Your task to perform on an android device: delete location history Image 0: 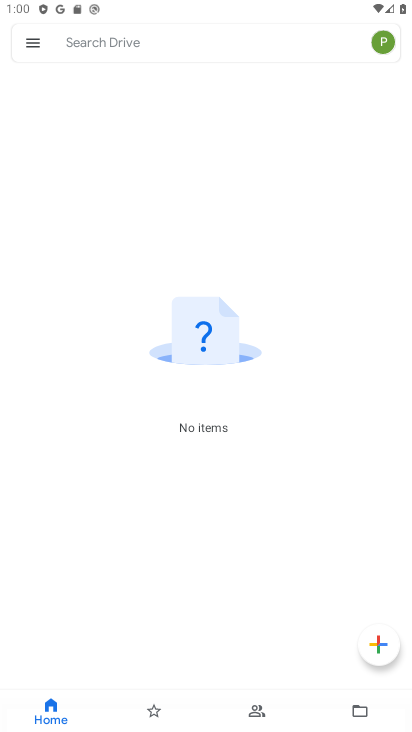
Step 0: press home button
Your task to perform on an android device: delete location history Image 1: 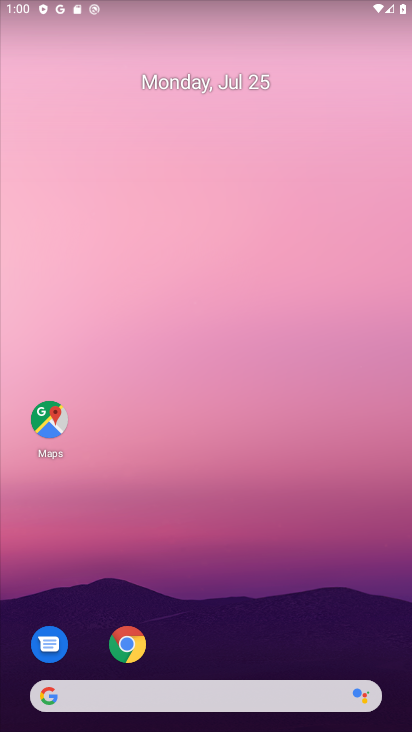
Step 1: click (54, 423)
Your task to perform on an android device: delete location history Image 2: 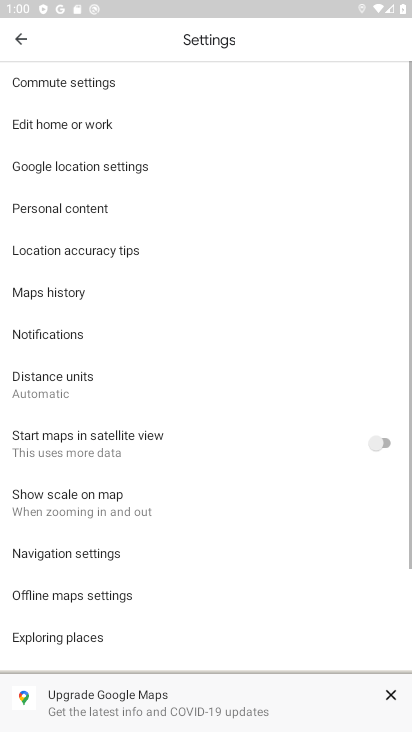
Step 2: click (22, 35)
Your task to perform on an android device: delete location history Image 3: 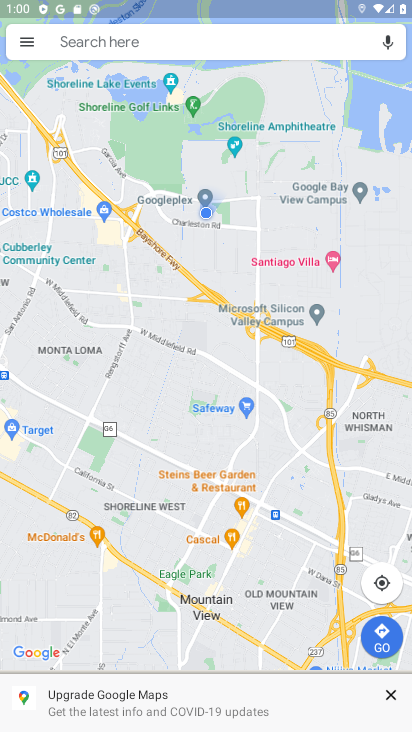
Step 3: click (22, 41)
Your task to perform on an android device: delete location history Image 4: 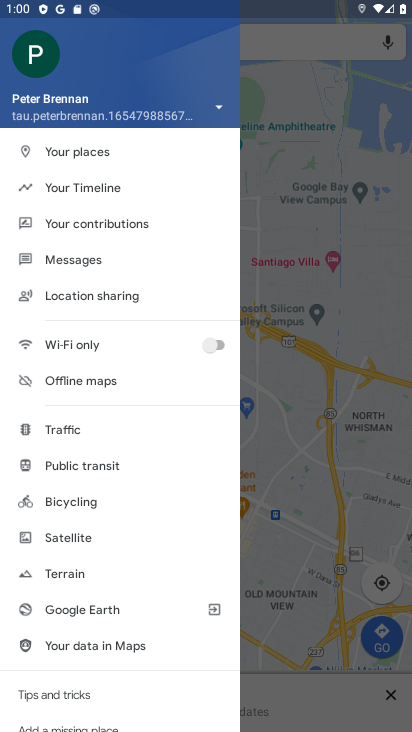
Step 4: click (81, 184)
Your task to perform on an android device: delete location history Image 5: 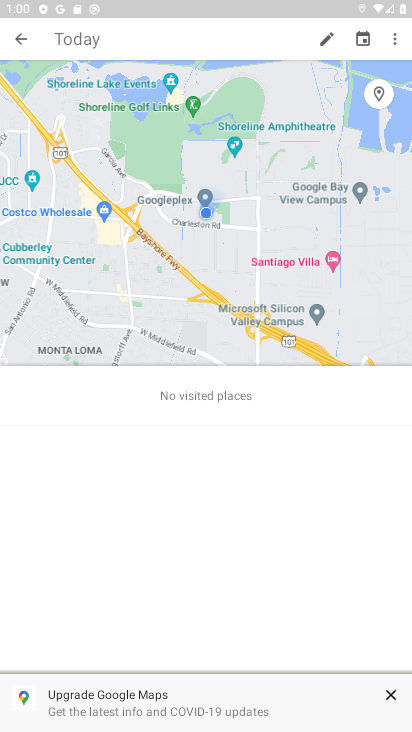
Step 5: click (397, 35)
Your task to perform on an android device: delete location history Image 6: 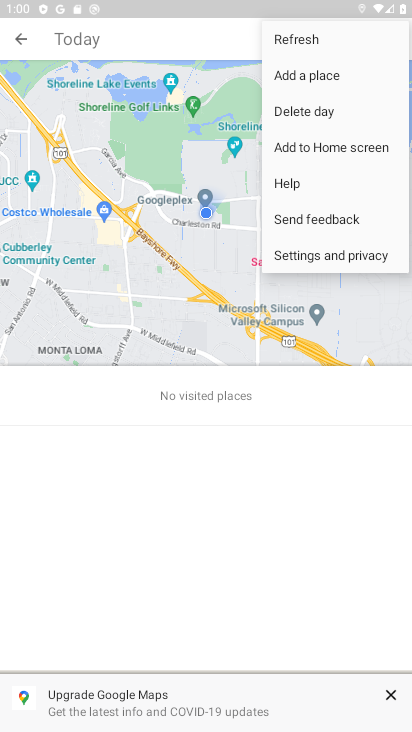
Step 6: click (314, 258)
Your task to perform on an android device: delete location history Image 7: 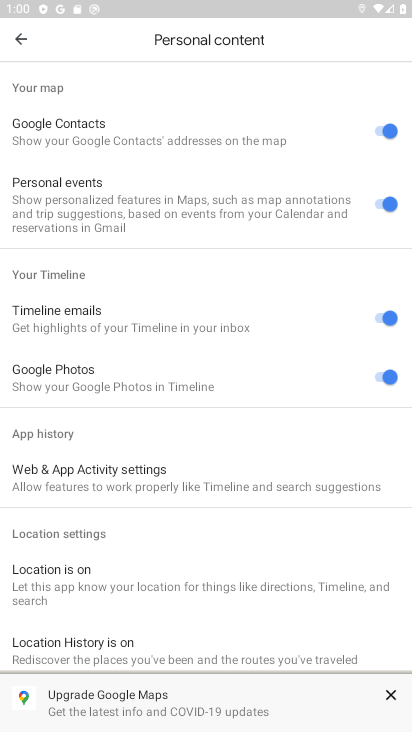
Step 7: drag from (146, 563) to (171, 381)
Your task to perform on an android device: delete location history Image 8: 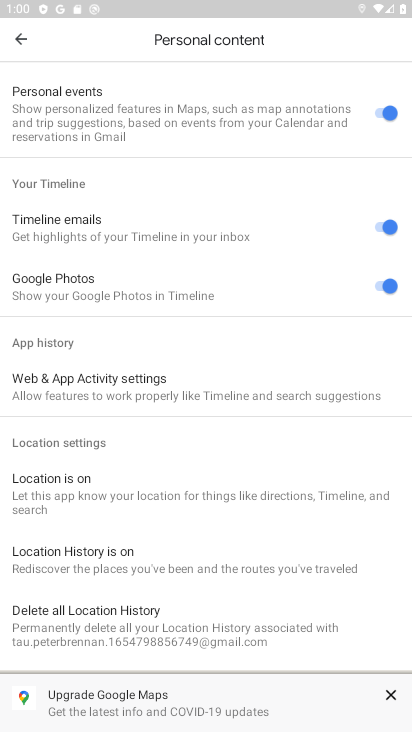
Step 8: click (145, 619)
Your task to perform on an android device: delete location history Image 9: 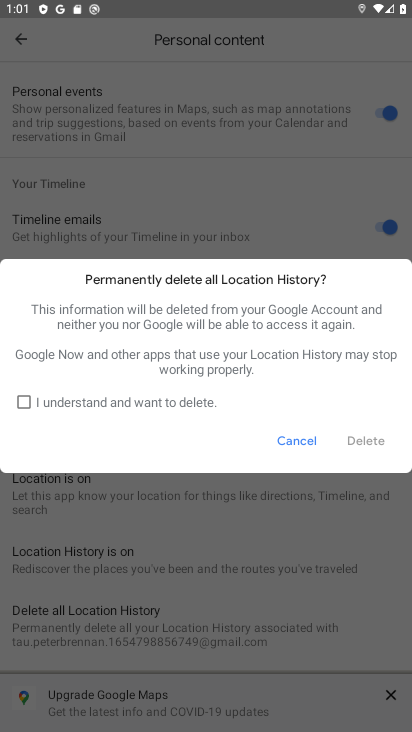
Step 9: click (18, 406)
Your task to perform on an android device: delete location history Image 10: 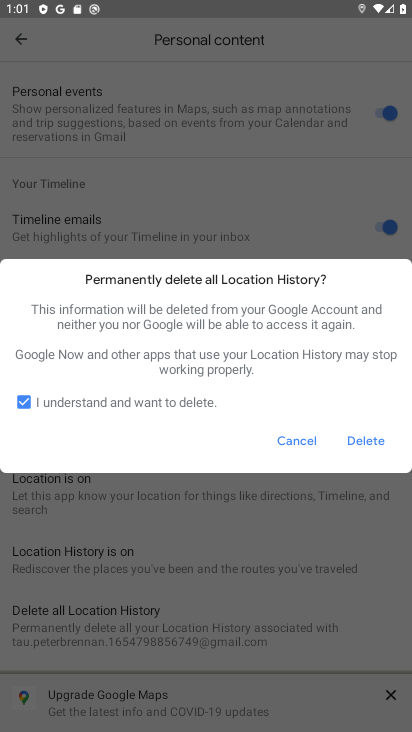
Step 10: click (373, 444)
Your task to perform on an android device: delete location history Image 11: 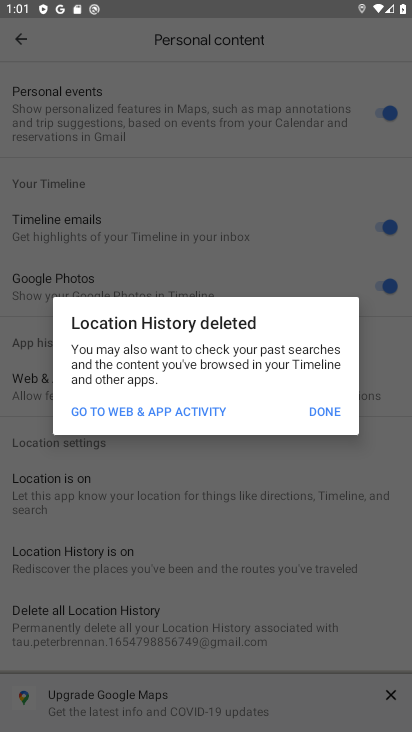
Step 11: click (328, 402)
Your task to perform on an android device: delete location history Image 12: 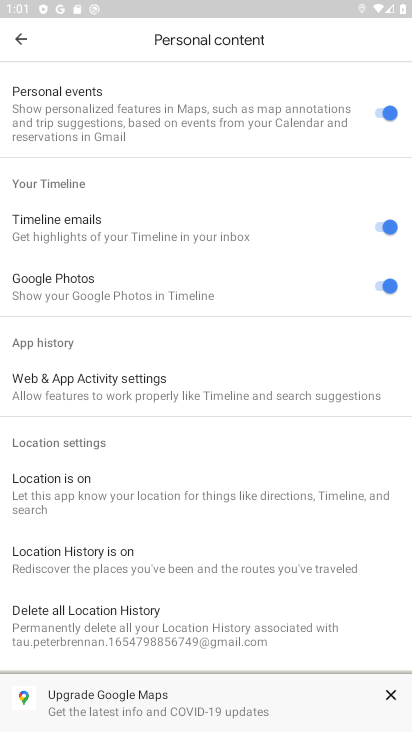
Step 12: task complete